Your task to perform on an android device: make emails show in primary in the gmail app Image 0: 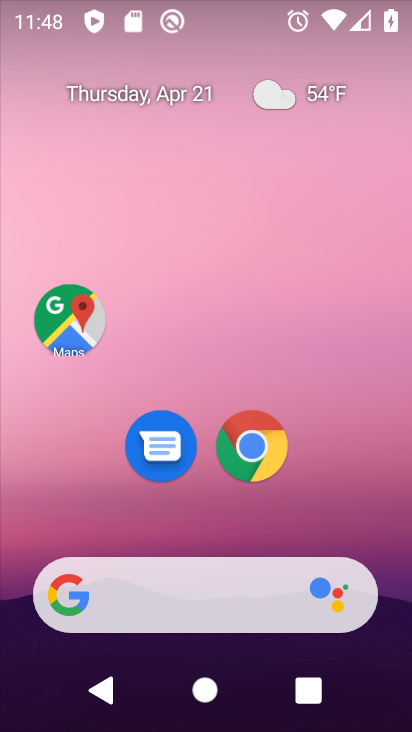
Step 0: drag from (353, 510) to (266, 86)
Your task to perform on an android device: make emails show in primary in the gmail app Image 1: 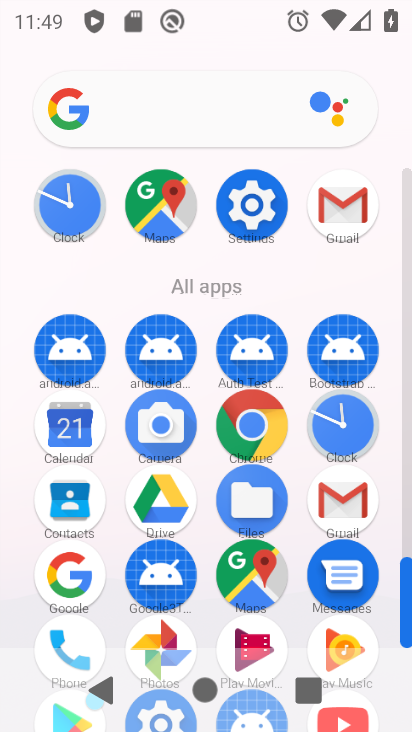
Step 1: click (357, 199)
Your task to perform on an android device: make emails show in primary in the gmail app Image 2: 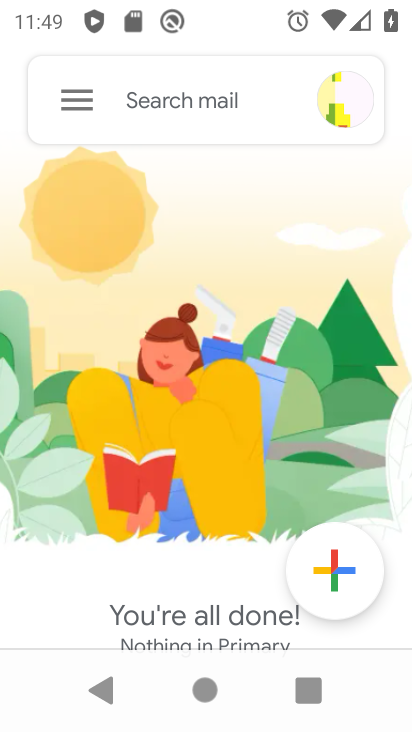
Step 2: click (76, 81)
Your task to perform on an android device: make emails show in primary in the gmail app Image 3: 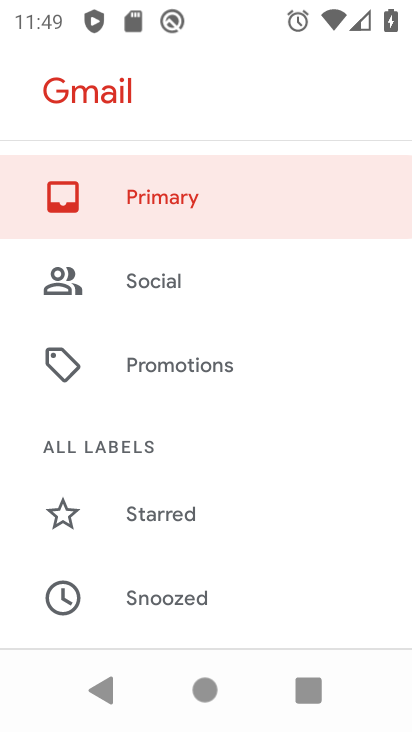
Step 3: drag from (255, 596) to (181, 16)
Your task to perform on an android device: make emails show in primary in the gmail app Image 4: 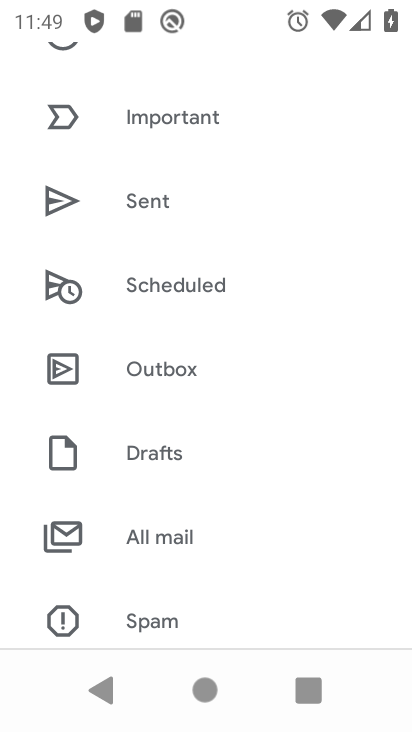
Step 4: drag from (327, 489) to (203, 135)
Your task to perform on an android device: make emails show in primary in the gmail app Image 5: 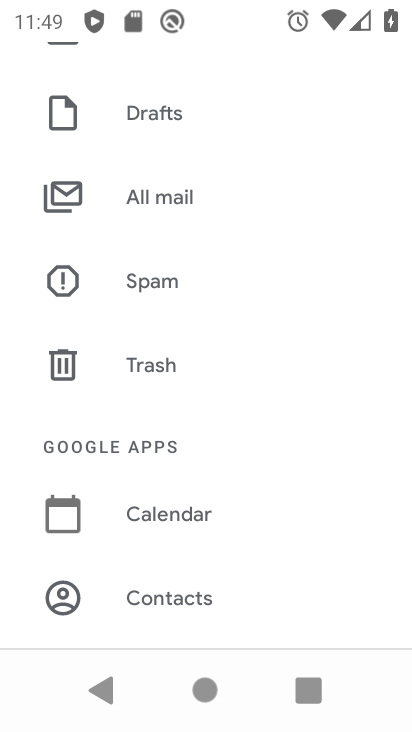
Step 5: drag from (291, 600) to (254, 337)
Your task to perform on an android device: make emails show in primary in the gmail app Image 6: 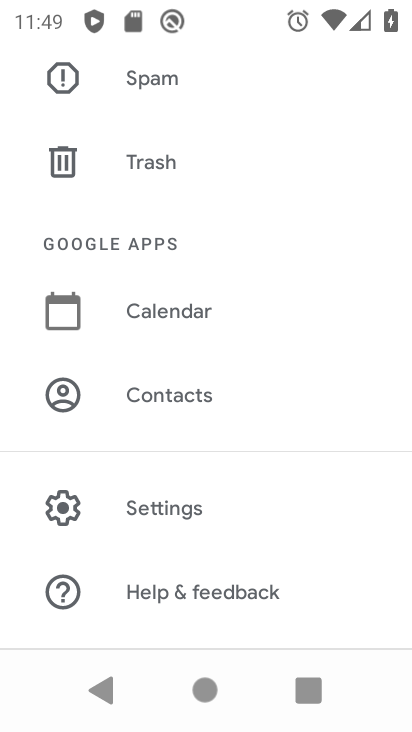
Step 6: click (298, 506)
Your task to perform on an android device: make emails show in primary in the gmail app Image 7: 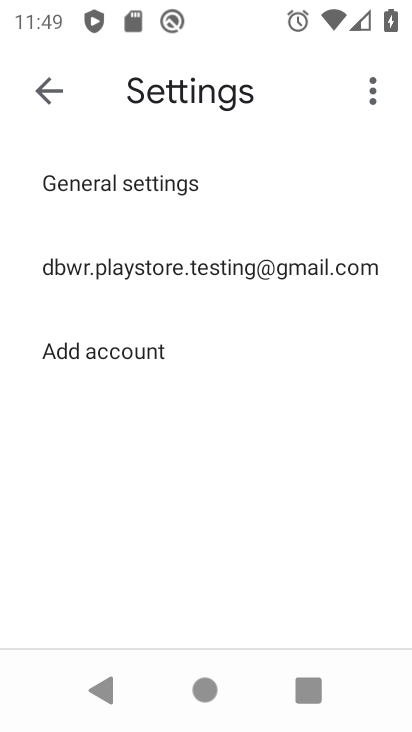
Step 7: click (212, 271)
Your task to perform on an android device: make emails show in primary in the gmail app Image 8: 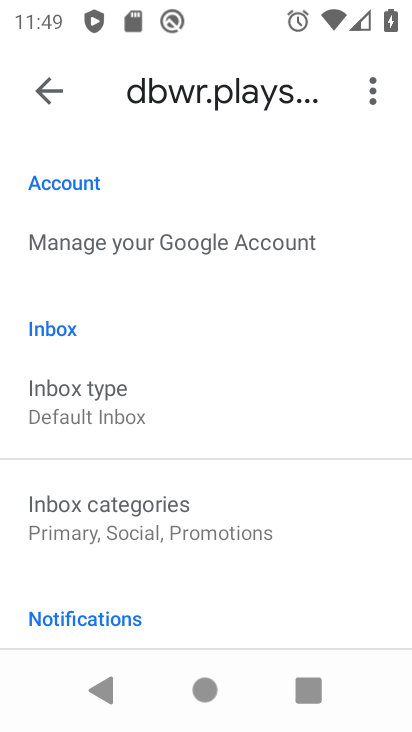
Step 8: task complete